Your task to perform on an android device: Open calendar and show me the first week of next month Image 0: 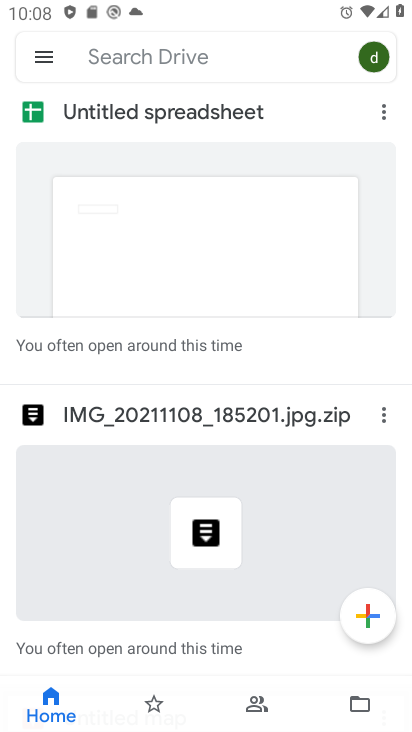
Step 0: press home button
Your task to perform on an android device: Open calendar and show me the first week of next month Image 1: 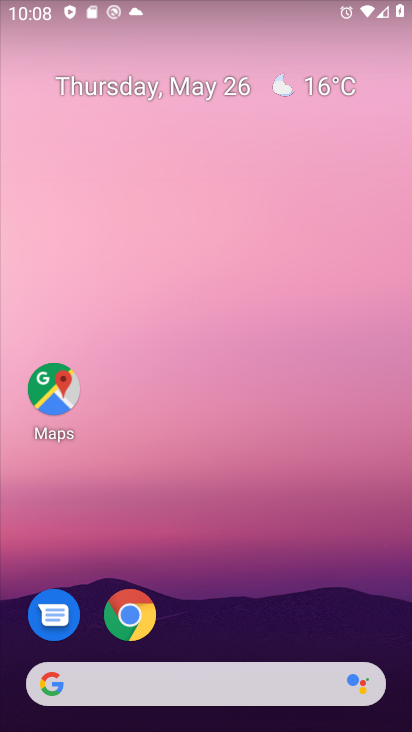
Step 1: drag from (256, 687) to (236, 184)
Your task to perform on an android device: Open calendar and show me the first week of next month Image 2: 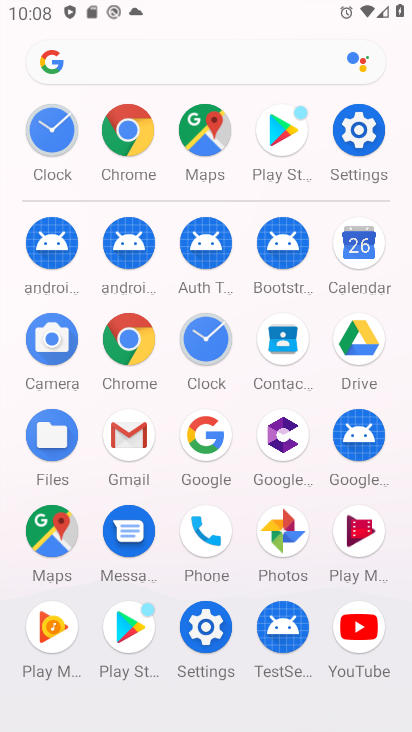
Step 2: click (350, 244)
Your task to perform on an android device: Open calendar and show me the first week of next month Image 3: 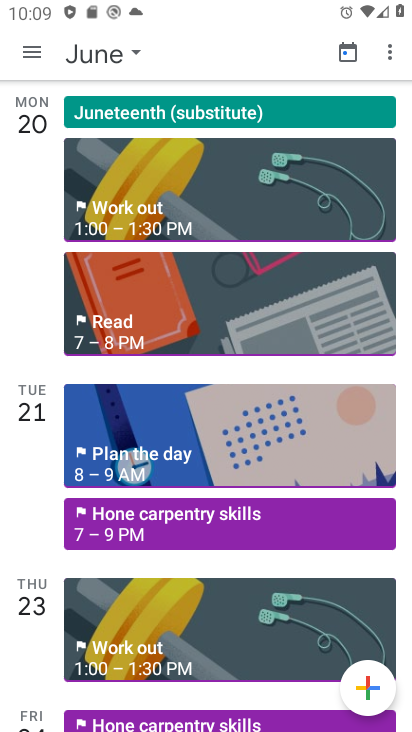
Step 3: click (43, 69)
Your task to perform on an android device: Open calendar and show me the first week of next month Image 4: 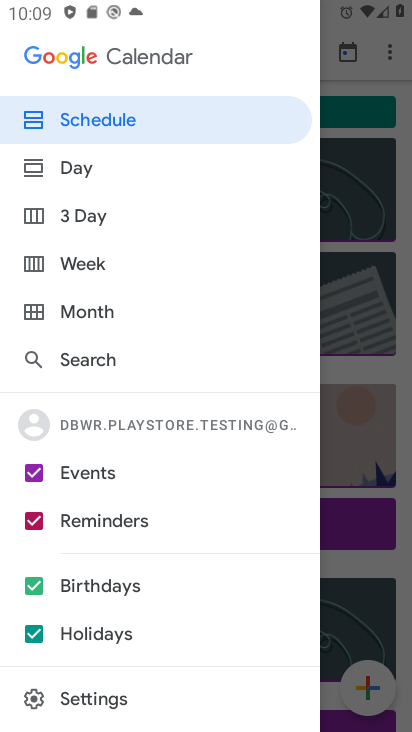
Step 4: click (111, 305)
Your task to perform on an android device: Open calendar and show me the first week of next month Image 5: 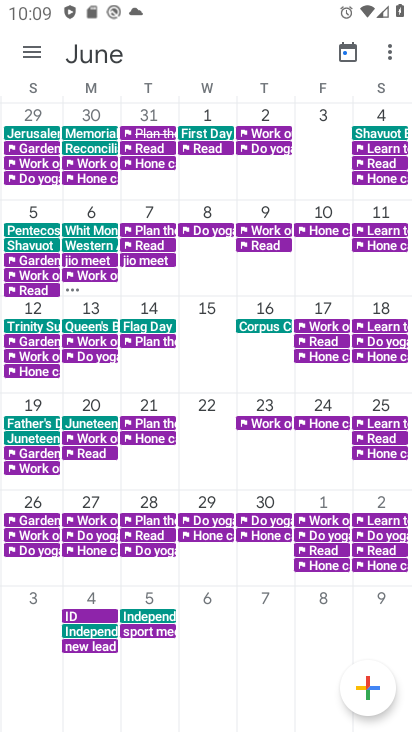
Step 5: click (195, 120)
Your task to perform on an android device: Open calendar and show me the first week of next month Image 6: 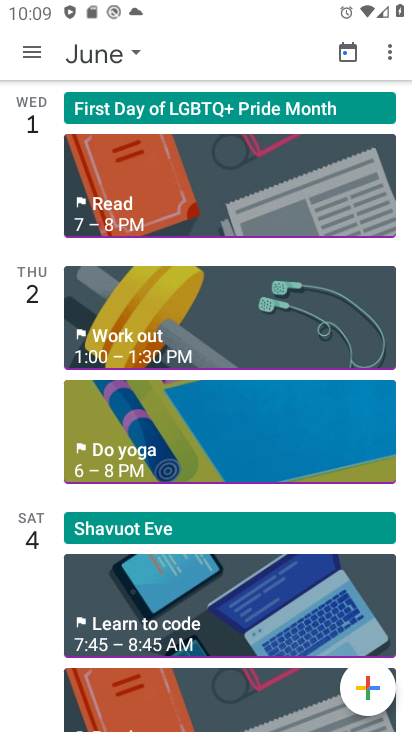
Step 6: task complete